Your task to perform on an android device: check google app version Image 0: 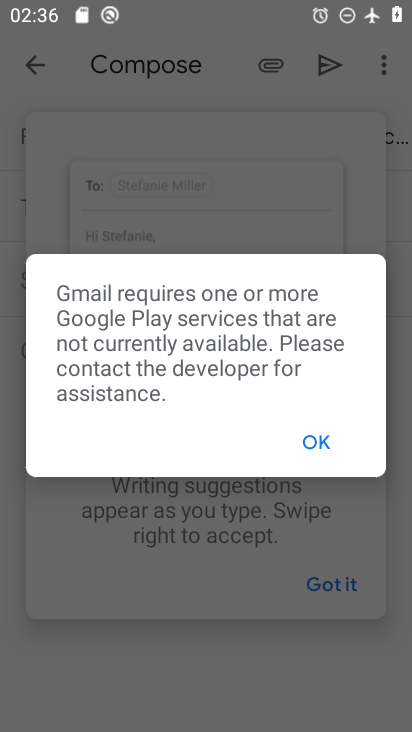
Step 0: press home button
Your task to perform on an android device: check google app version Image 1: 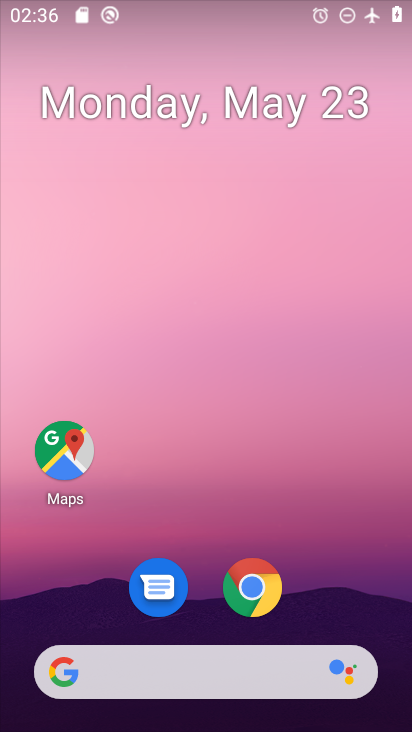
Step 1: click (270, 595)
Your task to perform on an android device: check google app version Image 2: 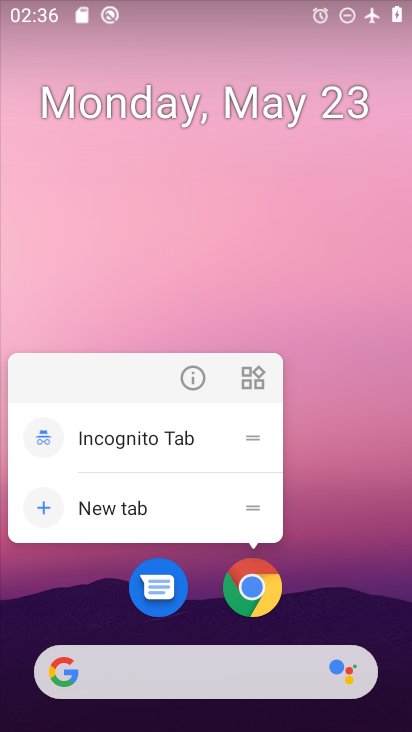
Step 2: click (185, 383)
Your task to perform on an android device: check google app version Image 3: 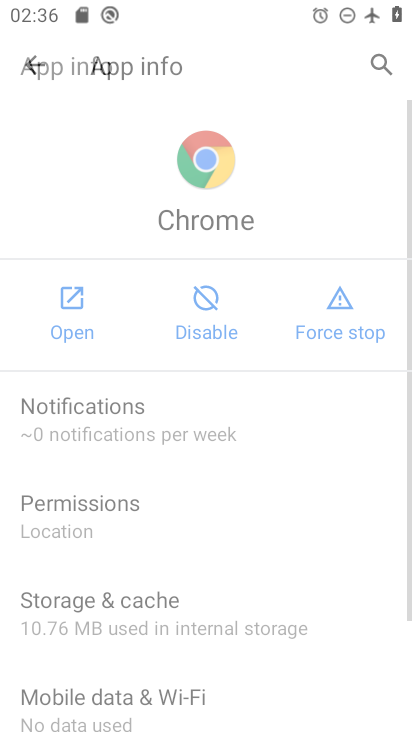
Step 3: task complete